Your task to perform on an android device: Check the weather Image 0: 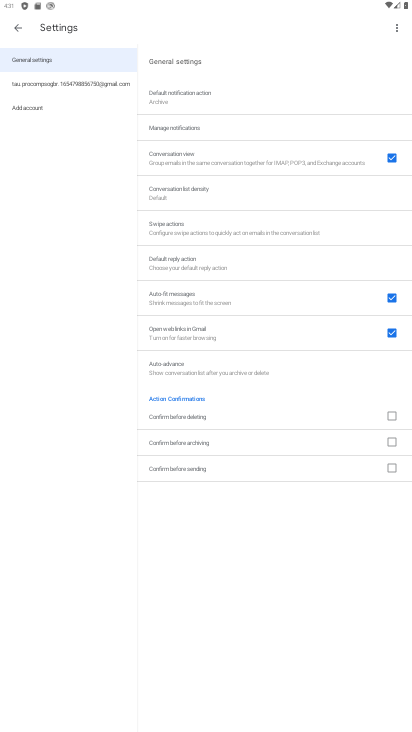
Step 0: press home button
Your task to perform on an android device: Check the weather Image 1: 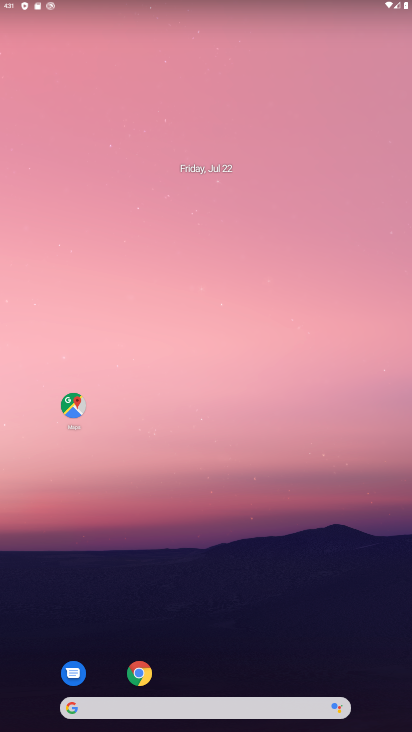
Step 1: click (69, 711)
Your task to perform on an android device: Check the weather Image 2: 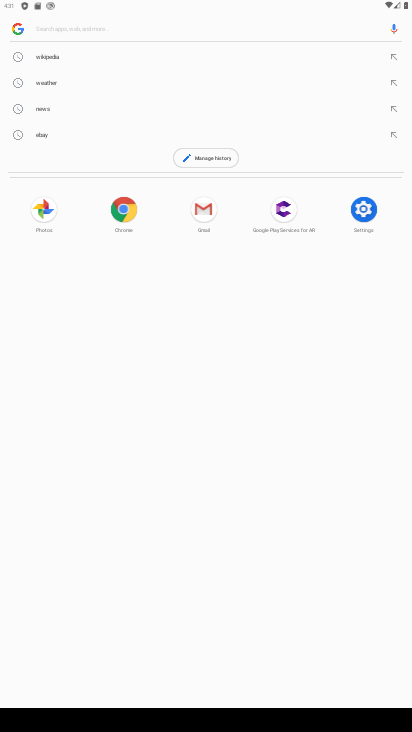
Step 2: type " weather"
Your task to perform on an android device: Check the weather Image 3: 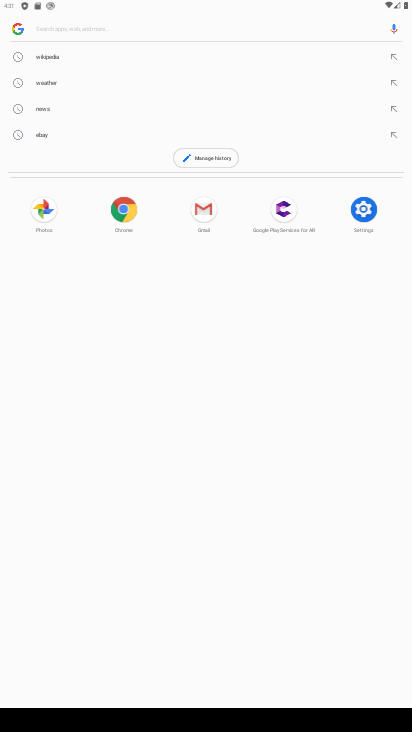
Step 3: click (47, 28)
Your task to perform on an android device: Check the weather Image 4: 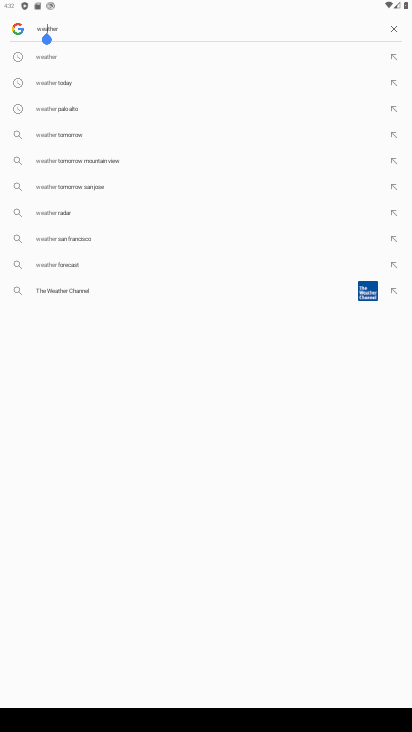
Step 4: press enter
Your task to perform on an android device: Check the weather Image 5: 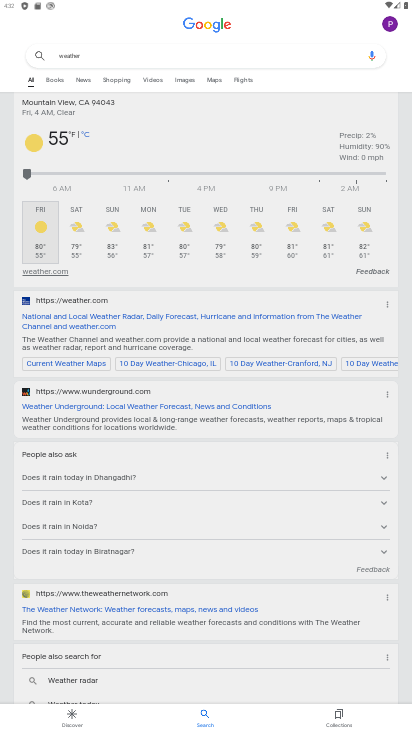
Step 5: task complete